Your task to perform on an android device: Search for Mexican restaurants on Maps Image 0: 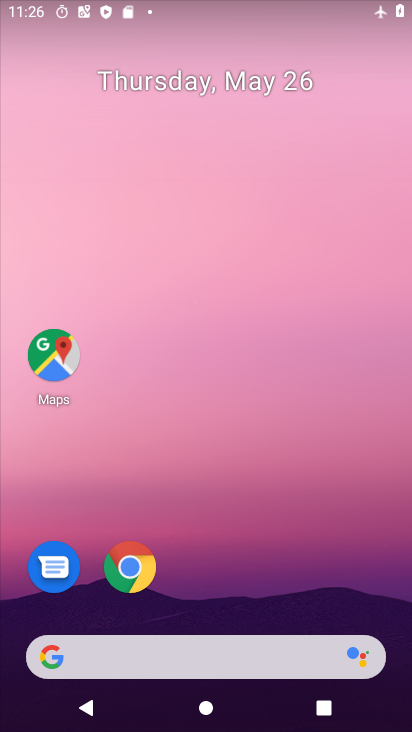
Step 0: click (57, 376)
Your task to perform on an android device: Search for Mexican restaurants on Maps Image 1: 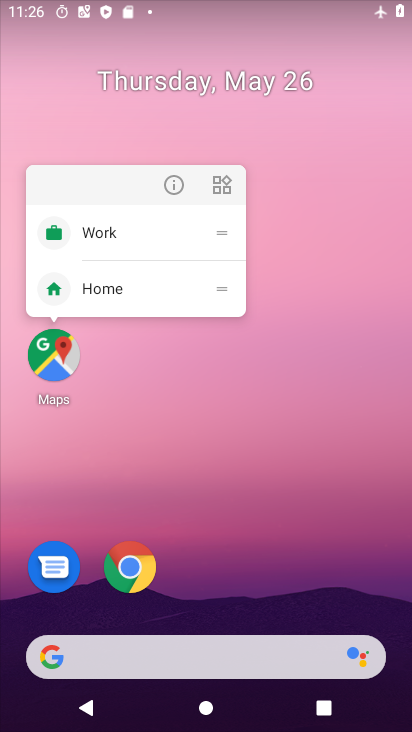
Step 1: click (54, 360)
Your task to perform on an android device: Search for Mexican restaurants on Maps Image 2: 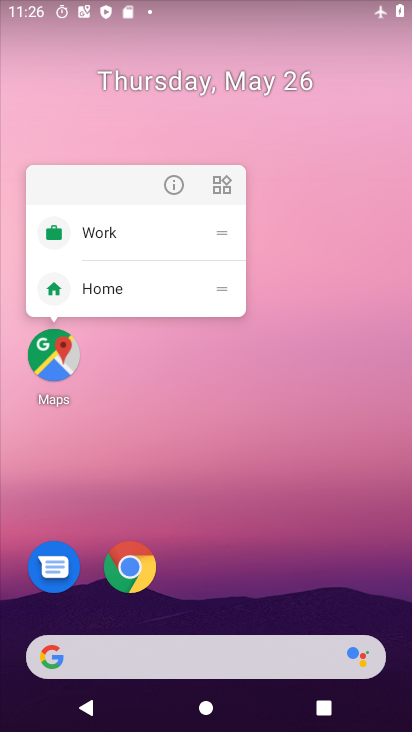
Step 2: click (54, 360)
Your task to perform on an android device: Search for Mexican restaurants on Maps Image 3: 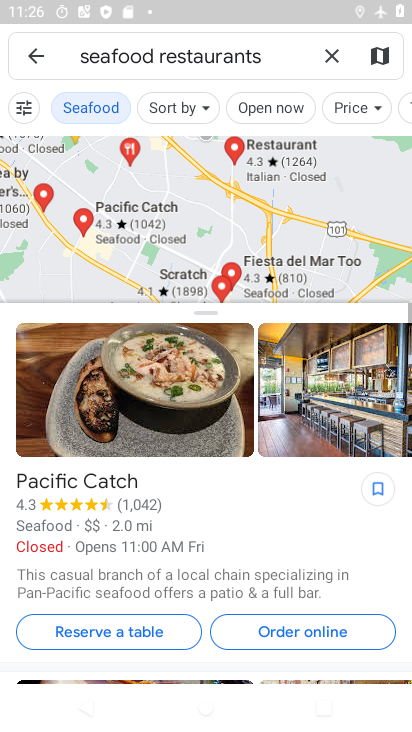
Step 3: click (331, 53)
Your task to perform on an android device: Search for Mexican restaurants on Maps Image 4: 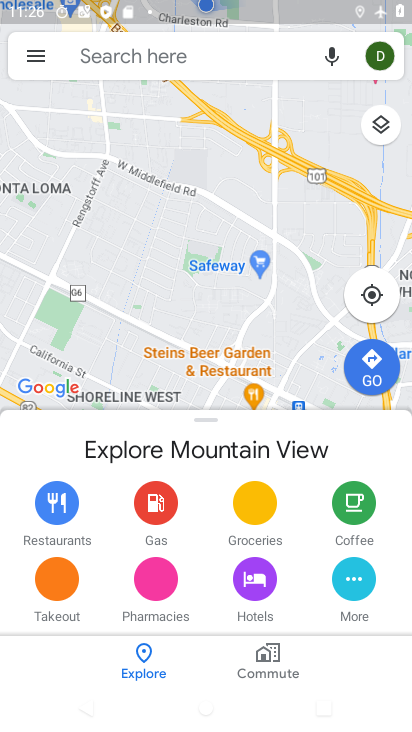
Step 4: click (239, 59)
Your task to perform on an android device: Search for Mexican restaurants on Maps Image 5: 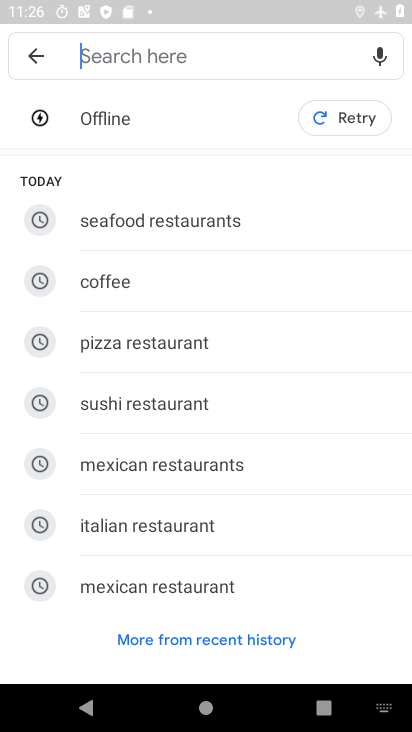
Step 5: click (281, 458)
Your task to perform on an android device: Search for Mexican restaurants on Maps Image 6: 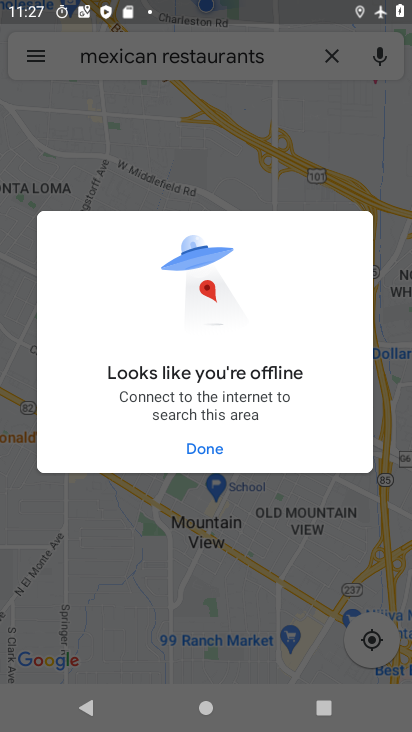
Step 6: task complete